Your task to perform on an android device: Go to settings Image 0: 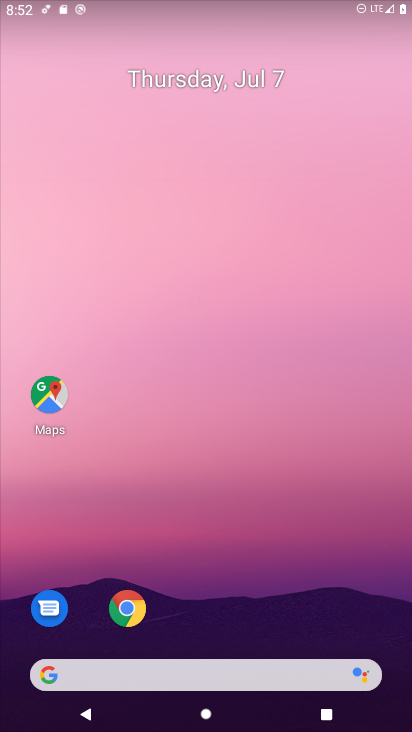
Step 0: drag from (376, 625) to (331, 101)
Your task to perform on an android device: Go to settings Image 1: 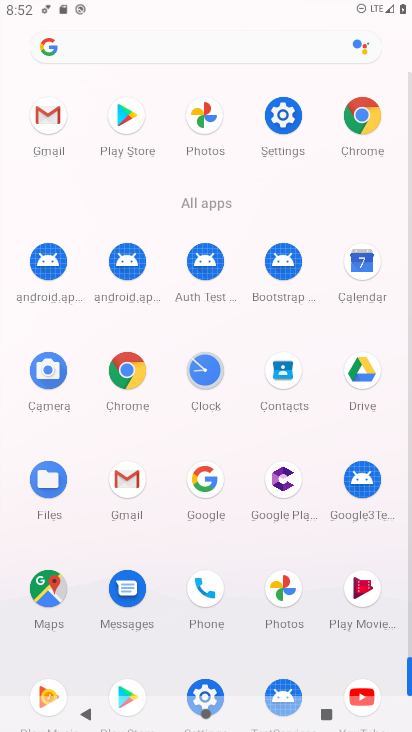
Step 1: click (207, 690)
Your task to perform on an android device: Go to settings Image 2: 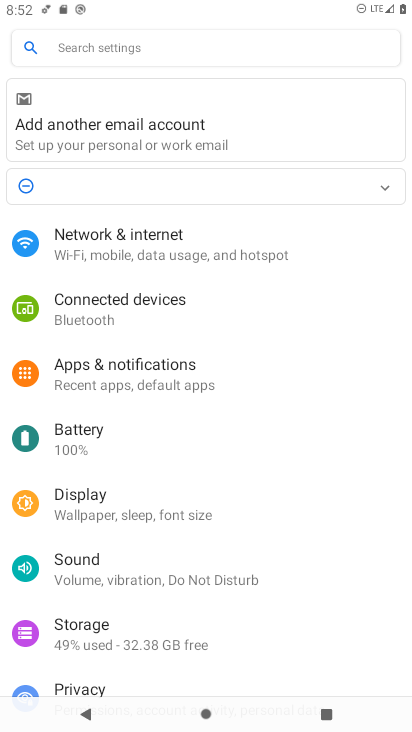
Step 2: task complete